Your task to perform on an android device: What's the weather going to be tomorrow? Image 0: 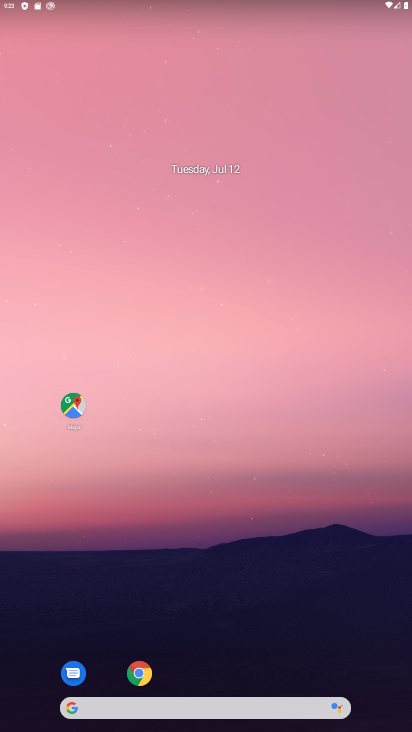
Step 0: click (314, 180)
Your task to perform on an android device: What's the weather going to be tomorrow? Image 1: 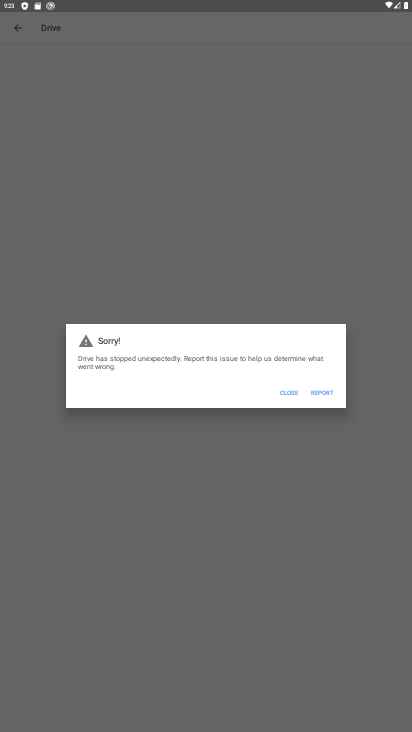
Step 1: task complete